Your task to perform on an android device: turn on airplane mode Image 0: 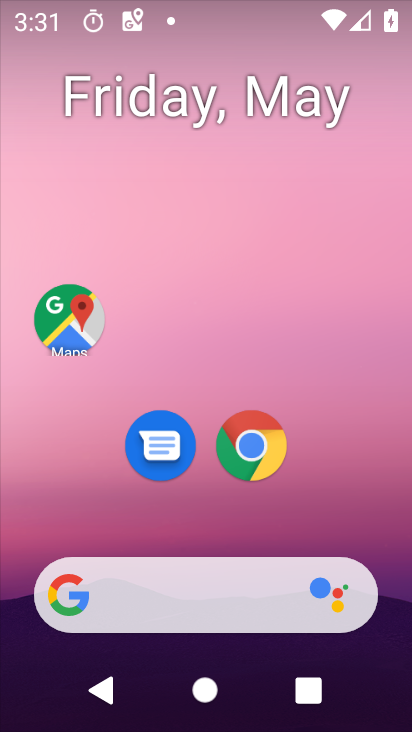
Step 0: drag from (210, 656) to (303, 219)
Your task to perform on an android device: turn on airplane mode Image 1: 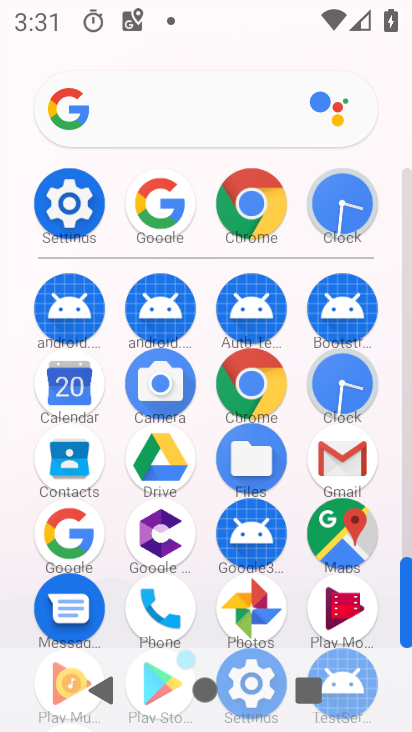
Step 1: click (82, 208)
Your task to perform on an android device: turn on airplane mode Image 2: 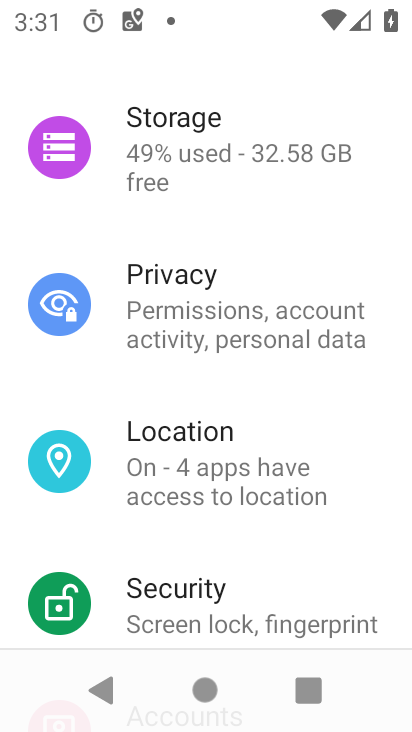
Step 2: drag from (143, 334) to (154, 456)
Your task to perform on an android device: turn on airplane mode Image 3: 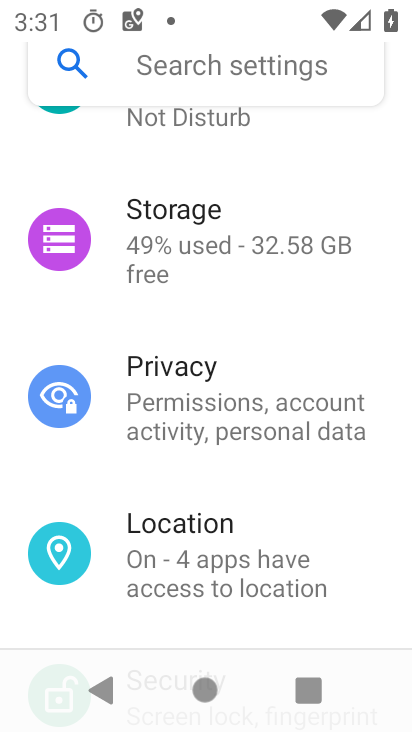
Step 3: drag from (205, 351) to (202, 489)
Your task to perform on an android device: turn on airplane mode Image 4: 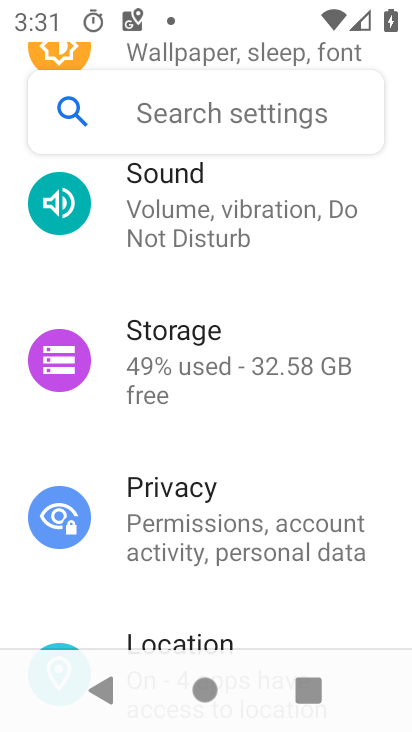
Step 4: drag from (242, 390) to (226, 544)
Your task to perform on an android device: turn on airplane mode Image 5: 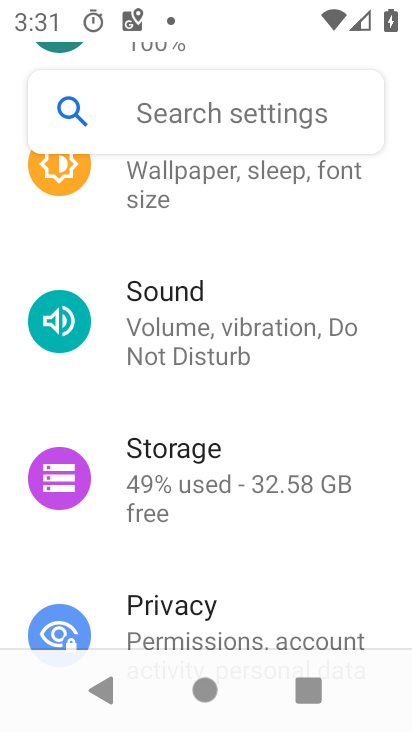
Step 5: drag from (242, 357) to (225, 562)
Your task to perform on an android device: turn on airplane mode Image 6: 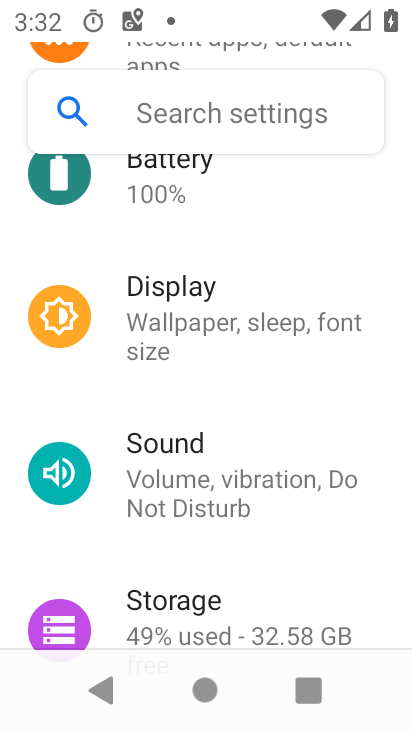
Step 6: drag from (241, 343) to (244, 619)
Your task to perform on an android device: turn on airplane mode Image 7: 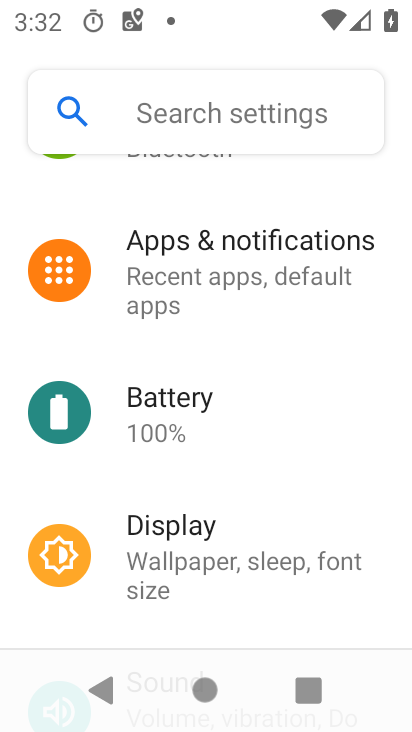
Step 7: drag from (266, 413) to (255, 532)
Your task to perform on an android device: turn on airplane mode Image 8: 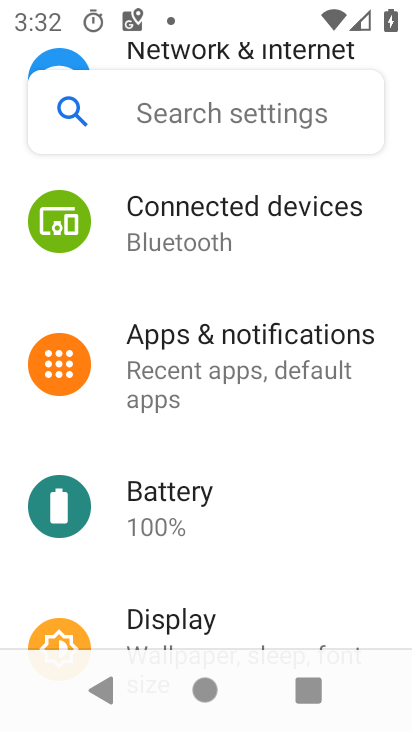
Step 8: drag from (246, 343) to (233, 491)
Your task to perform on an android device: turn on airplane mode Image 9: 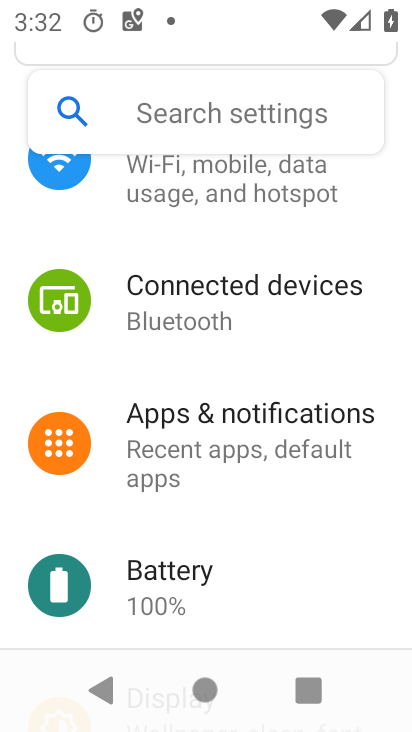
Step 9: drag from (226, 306) to (216, 508)
Your task to perform on an android device: turn on airplane mode Image 10: 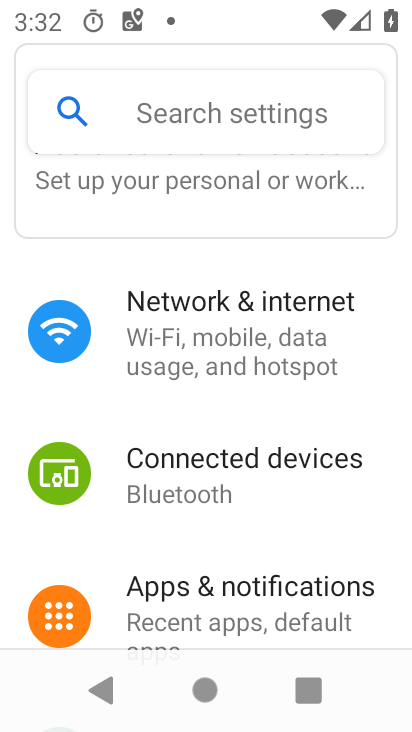
Step 10: click (230, 335)
Your task to perform on an android device: turn on airplane mode Image 11: 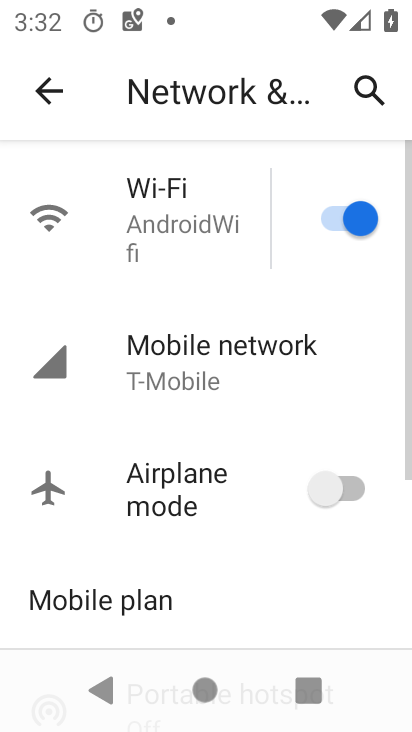
Step 11: click (323, 487)
Your task to perform on an android device: turn on airplane mode Image 12: 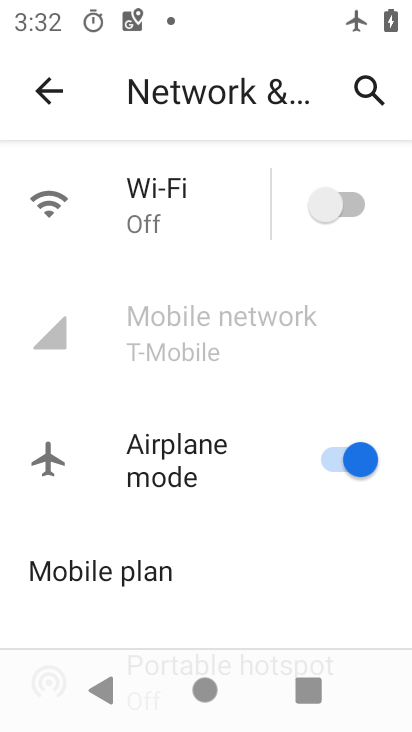
Step 12: task complete